Your task to perform on an android device: clear history in the chrome app Image 0: 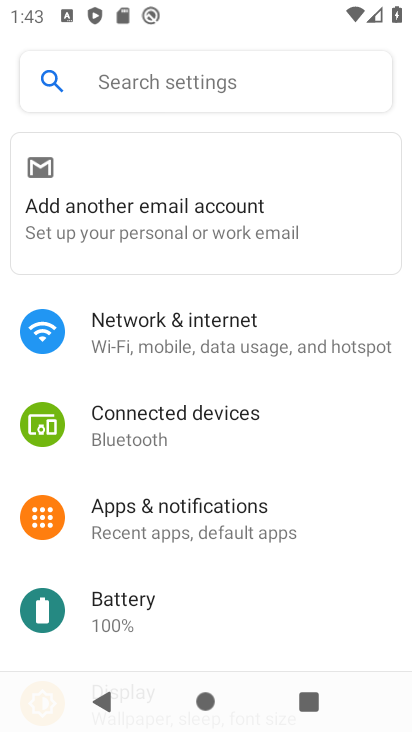
Step 0: press home button
Your task to perform on an android device: clear history in the chrome app Image 1: 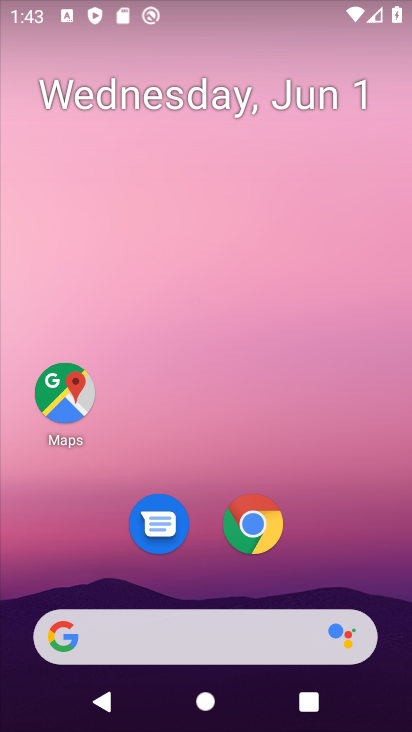
Step 1: click (267, 518)
Your task to perform on an android device: clear history in the chrome app Image 2: 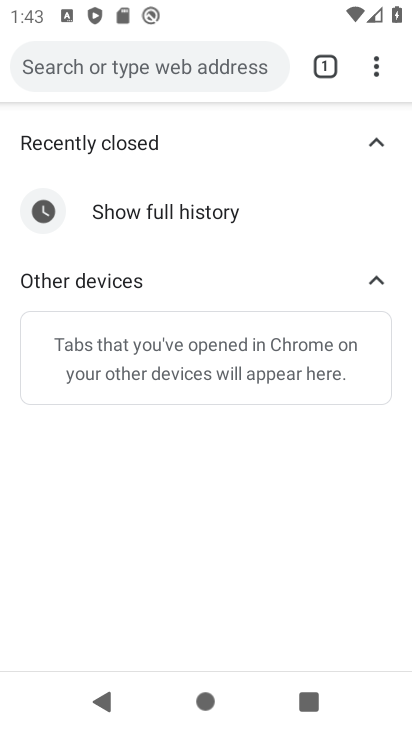
Step 2: click (374, 61)
Your task to perform on an android device: clear history in the chrome app Image 3: 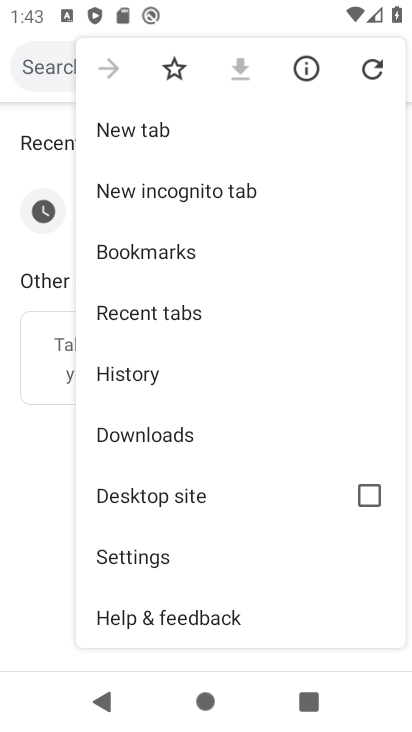
Step 3: click (199, 553)
Your task to perform on an android device: clear history in the chrome app Image 4: 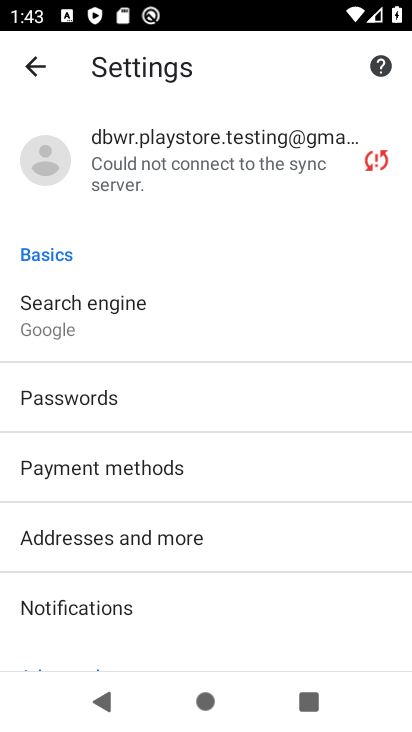
Step 4: drag from (202, 538) to (229, 361)
Your task to perform on an android device: clear history in the chrome app Image 5: 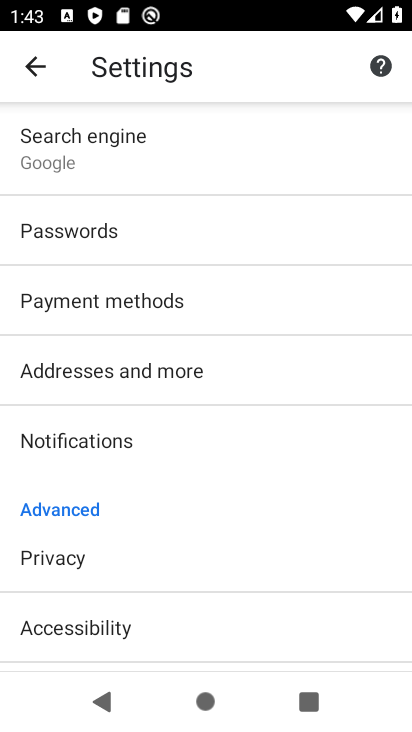
Step 5: click (88, 560)
Your task to perform on an android device: clear history in the chrome app Image 6: 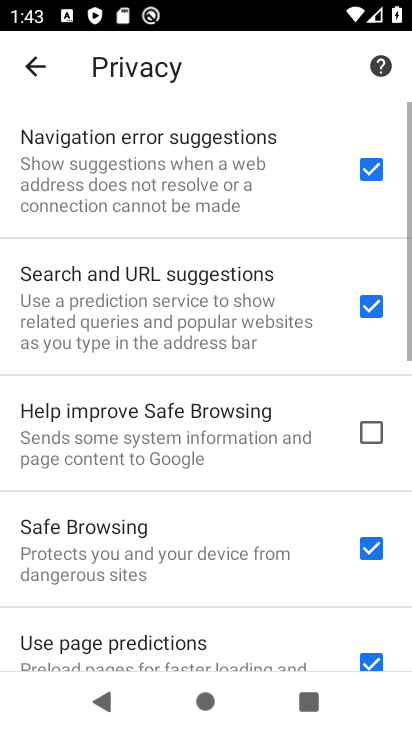
Step 6: drag from (175, 633) to (235, 0)
Your task to perform on an android device: clear history in the chrome app Image 7: 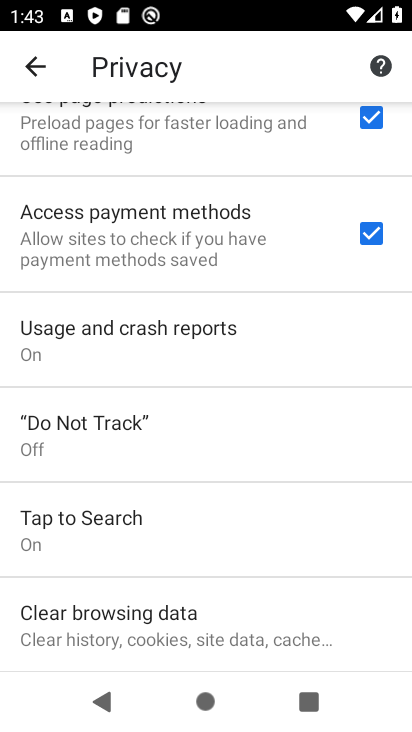
Step 7: click (181, 619)
Your task to perform on an android device: clear history in the chrome app Image 8: 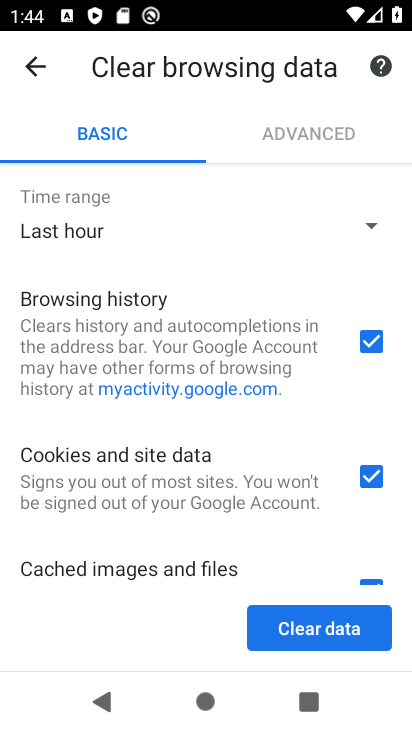
Step 8: click (370, 481)
Your task to perform on an android device: clear history in the chrome app Image 9: 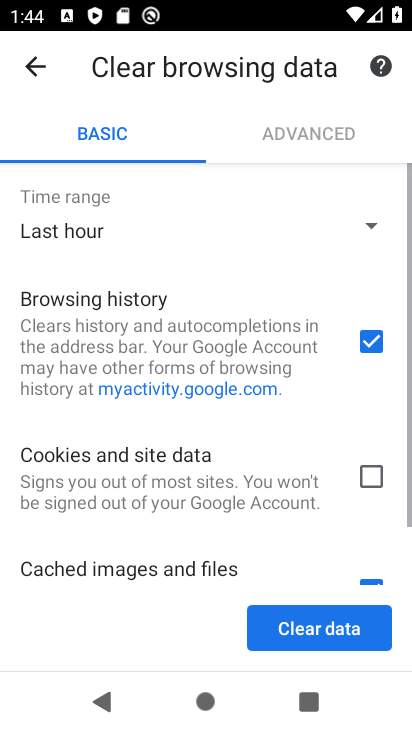
Step 9: drag from (314, 528) to (313, 444)
Your task to perform on an android device: clear history in the chrome app Image 10: 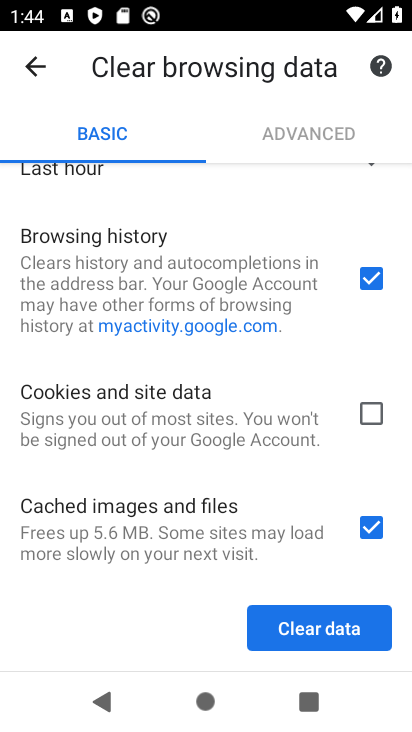
Step 10: click (364, 522)
Your task to perform on an android device: clear history in the chrome app Image 11: 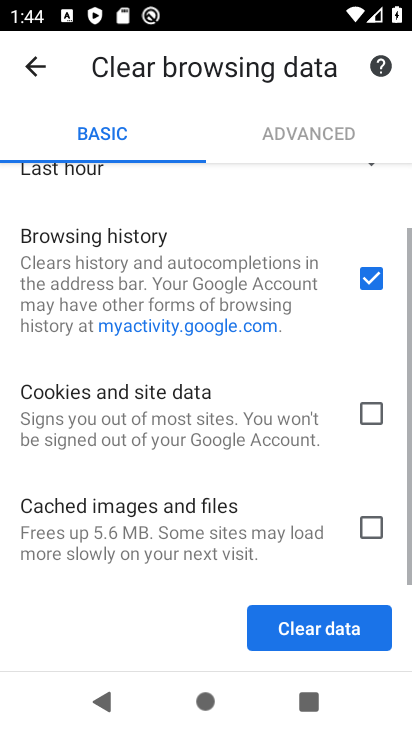
Step 11: click (347, 622)
Your task to perform on an android device: clear history in the chrome app Image 12: 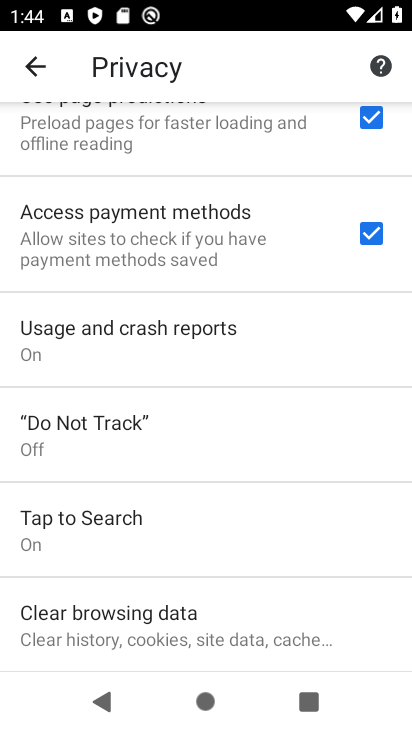
Step 12: task complete